Your task to perform on an android device: What is the recent news? Image 0: 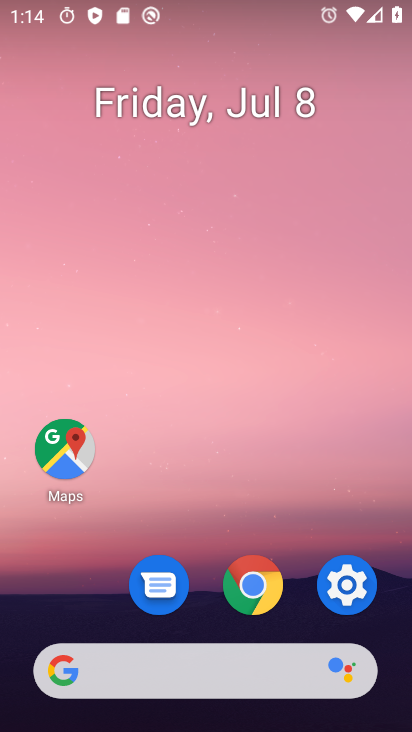
Step 0: click (196, 668)
Your task to perform on an android device: What is the recent news? Image 1: 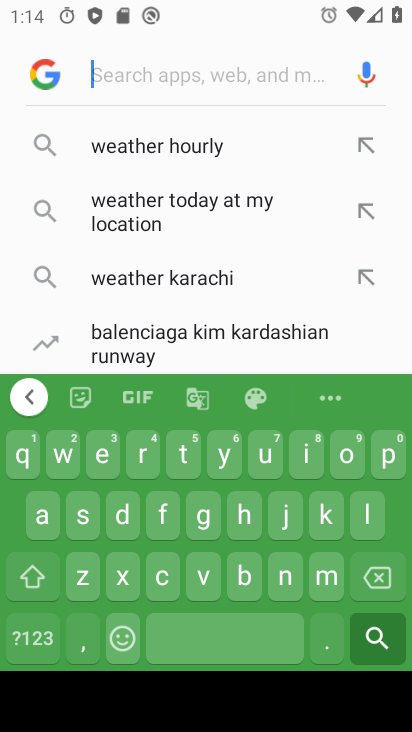
Step 1: click (140, 457)
Your task to perform on an android device: What is the recent news? Image 2: 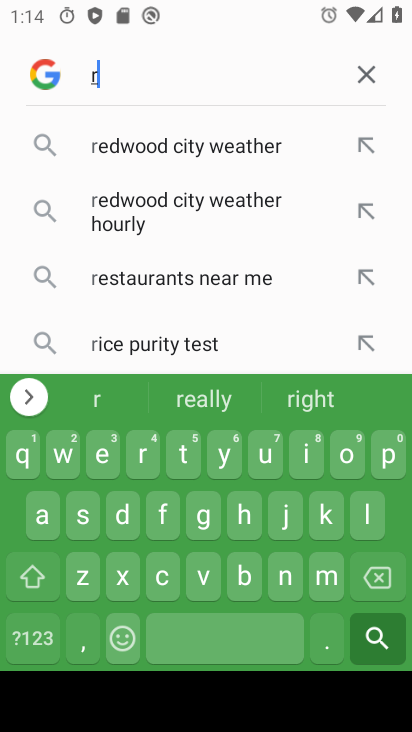
Step 2: click (102, 458)
Your task to perform on an android device: What is the recent news? Image 3: 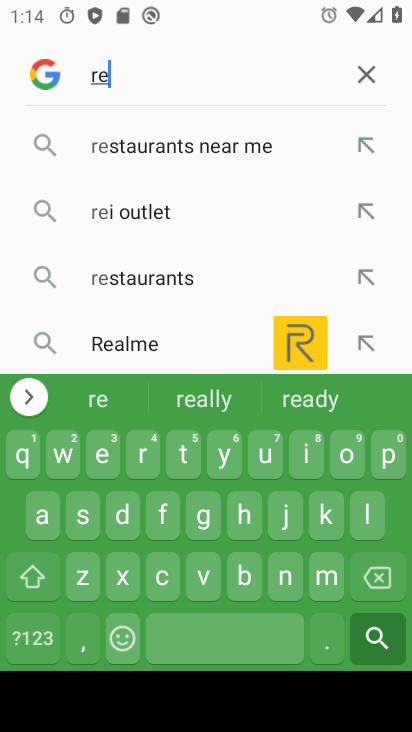
Step 3: click (160, 581)
Your task to perform on an android device: What is the recent news? Image 4: 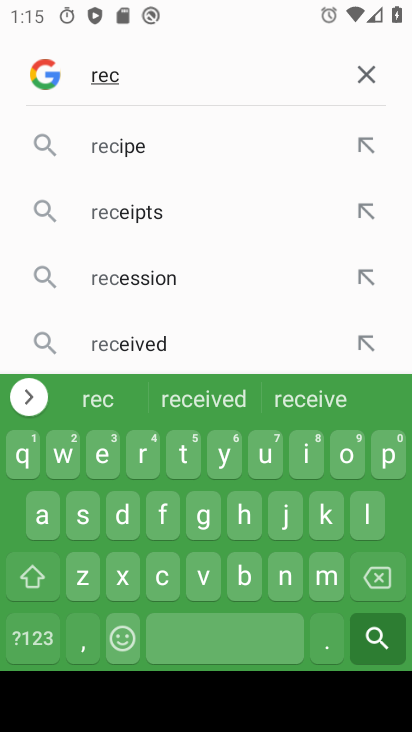
Step 4: click (102, 465)
Your task to perform on an android device: What is the recent news? Image 5: 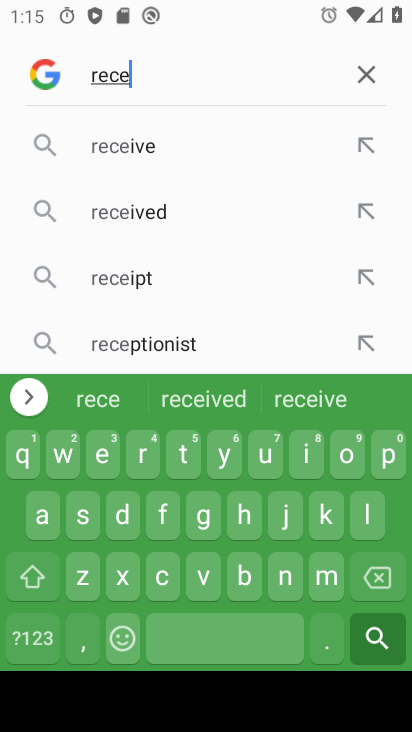
Step 5: click (292, 585)
Your task to perform on an android device: What is the recent news? Image 6: 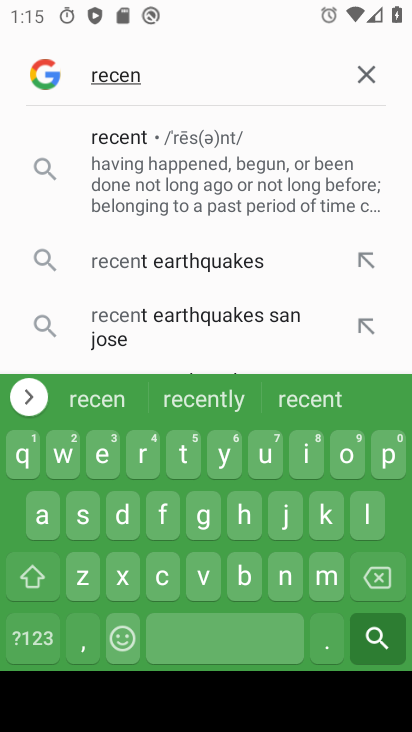
Step 6: click (304, 407)
Your task to perform on an android device: What is the recent news? Image 7: 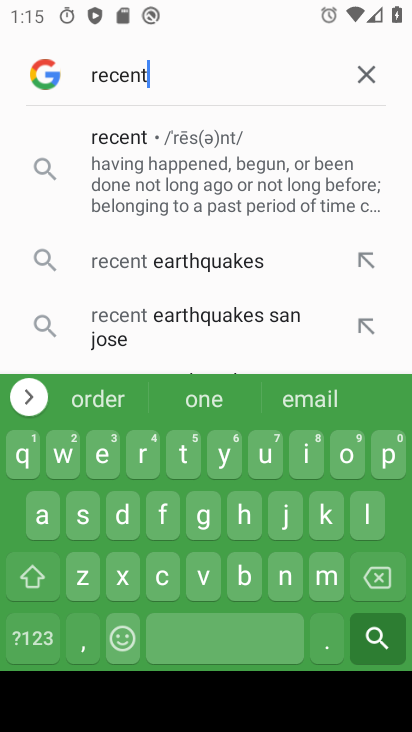
Step 7: click (284, 577)
Your task to perform on an android device: What is the recent news? Image 8: 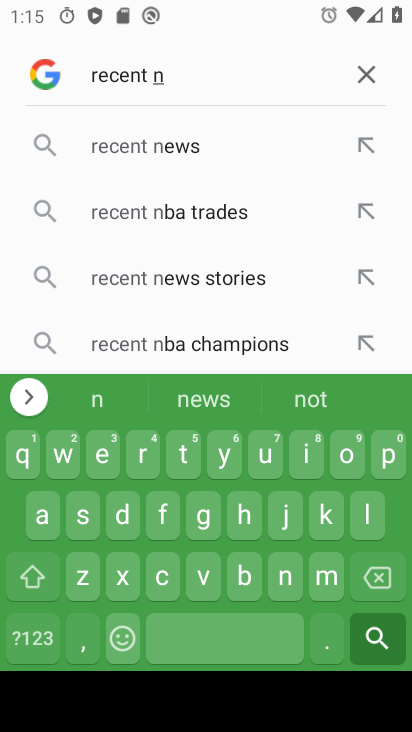
Step 8: click (161, 151)
Your task to perform on an android device: What is the recent news? Image 9: 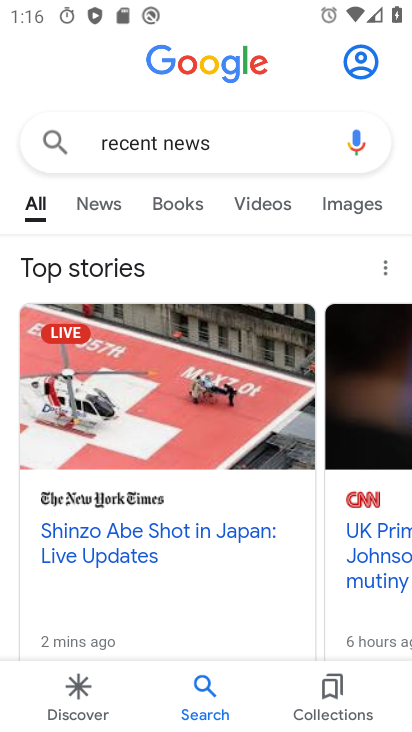
Step 9: task complete